Your task to perform on an android device: Open calendar and show me the first week of next month Image 0: 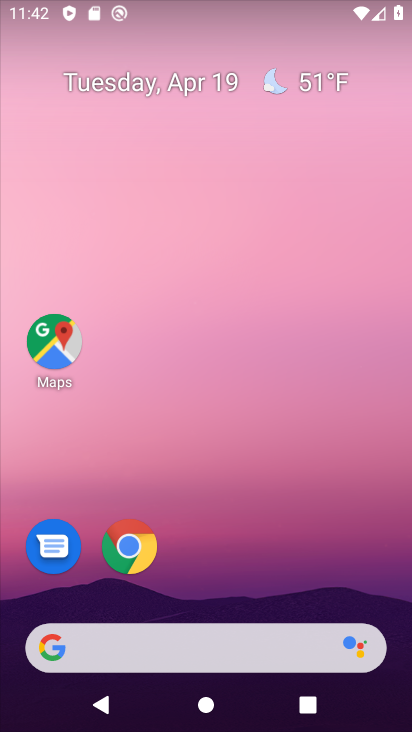
Step 0: drag from (256, 574) to (254, 34)
Your task to perform on an android device: Open calendar and show me the first week of next month Image 1: 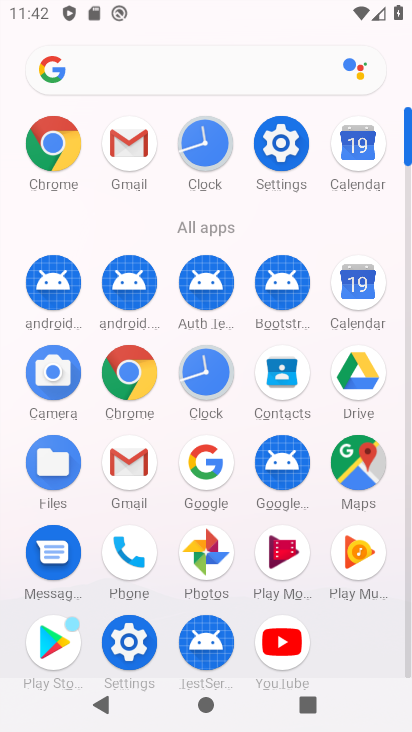
Step 1: click (354, 143)
Your task to perform on an android device: Open calendar and show me the first week of next month Image 2: 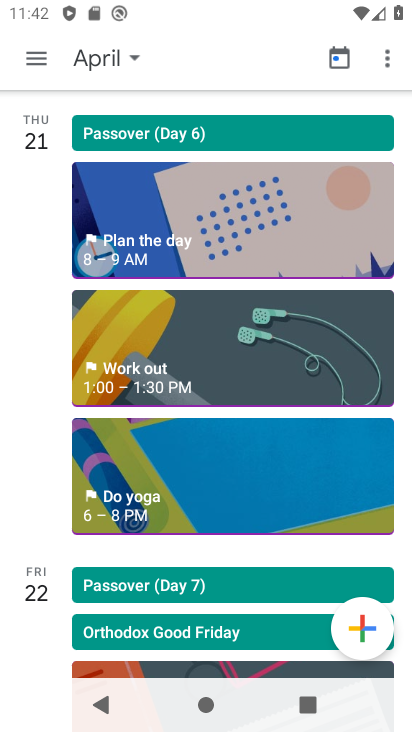
Step 2: click (105, 59)
Your task to perform on an android device: Open calendar and show me the first week of next month Image 3: 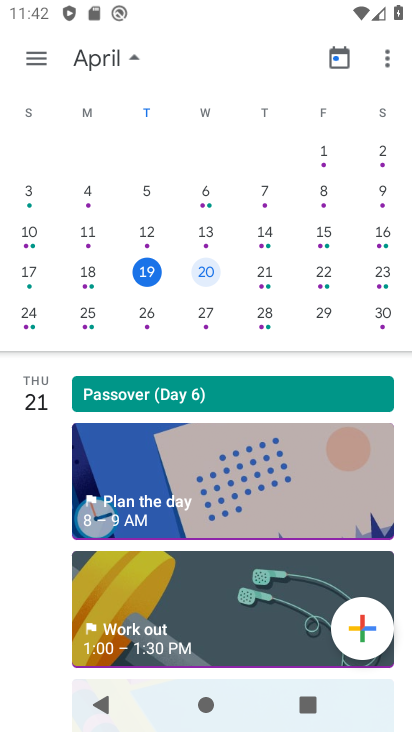
Step 3: drag from (366, 249) to (27, 252)
Your task to perform on an android device: Open calendar and show me the first week of next month Image 4: 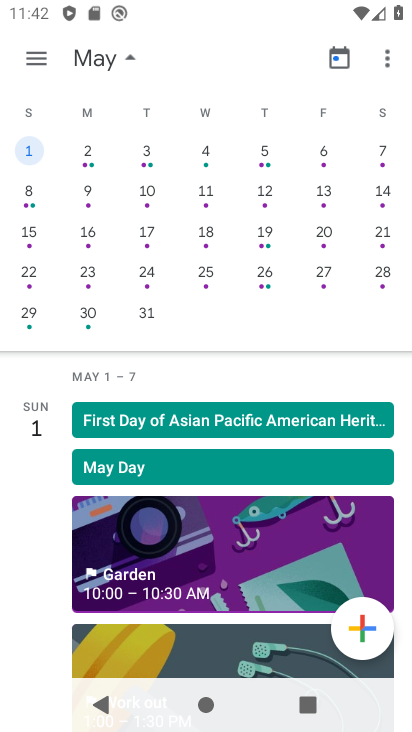
Step 4: click (35, 55)
Your task to perform on an android device: Open calendar and show me the first week of next month Image 5: 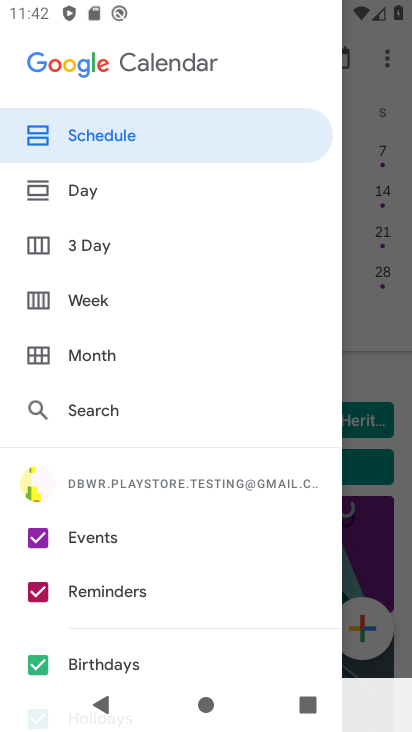
Step 5: click (96, 299)
Your task to perform on an android device: Open calendar and show me the first week of next month Image 6: 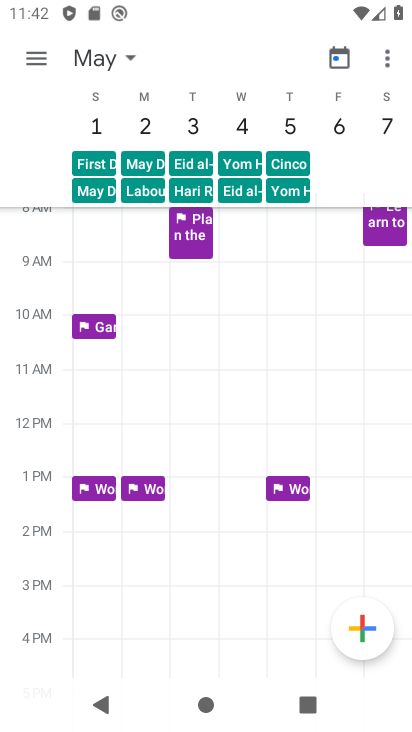
Step 6: task complete